Your task to perform on an android device: Open Reddit.com Image 0: 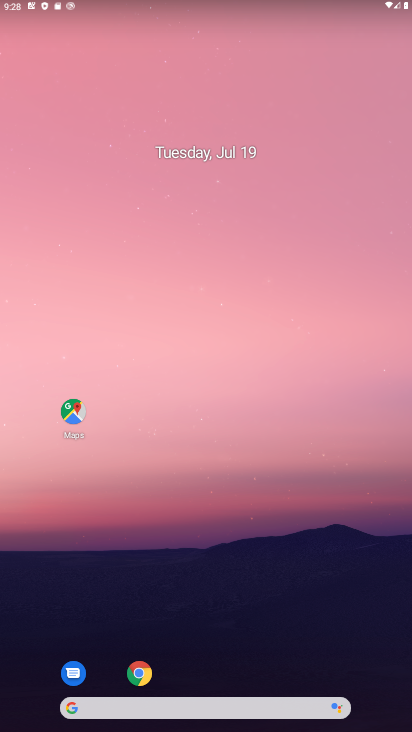
Step 0: drag from (254, 658) to (237, 150)
Your task to perform on an android device: Open Reddit.com Image 1: 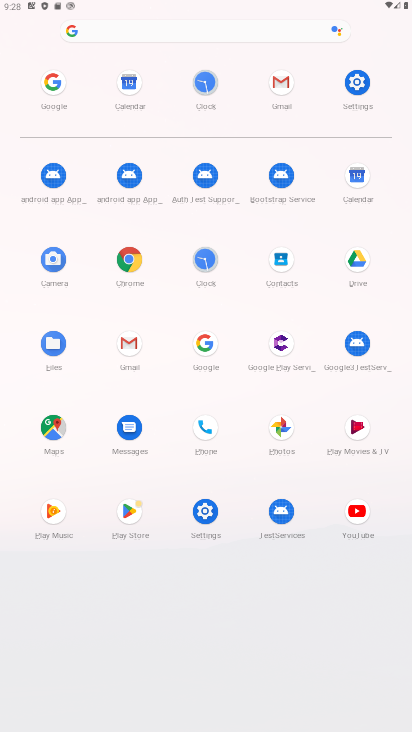
Step 1: click (138, 263)
Your task to perform on an android device: Open Reddit.com Image 2: 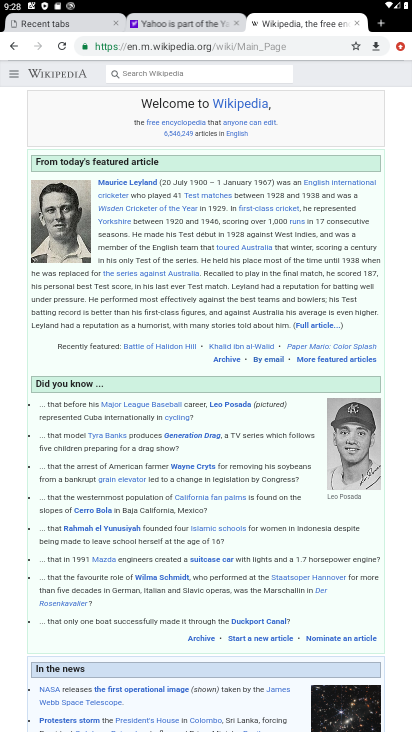
Step 2: click (383, 23)
Your task to perform on an android device: Open Reddit.com Image 3: 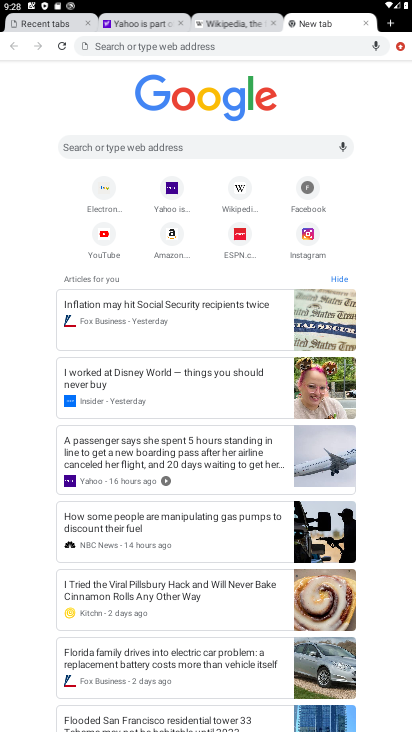
Step 3: type "Reddit.com"
Your task to perform on an android device: Open Reddit.com Image 4: 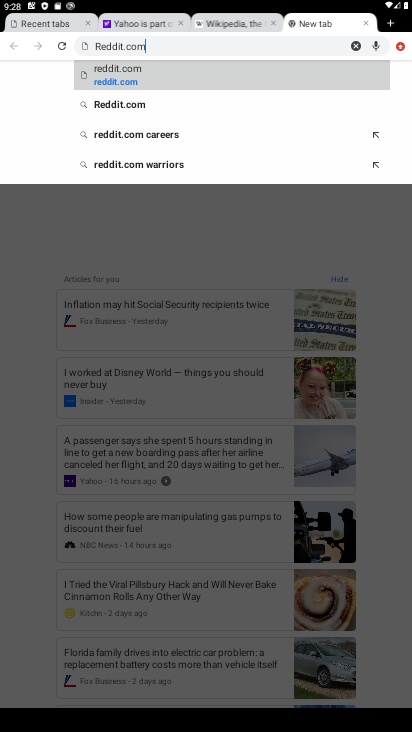
Step 4: click (166, 86)
Your task to perform on an android device: Open Reddit.com Image 5: 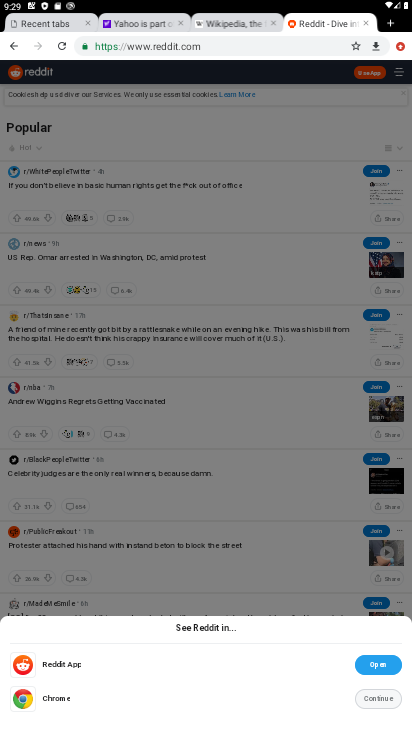
Step 5: task complete